Your task to perform on an android device: find photos in the google photos app Image 0: 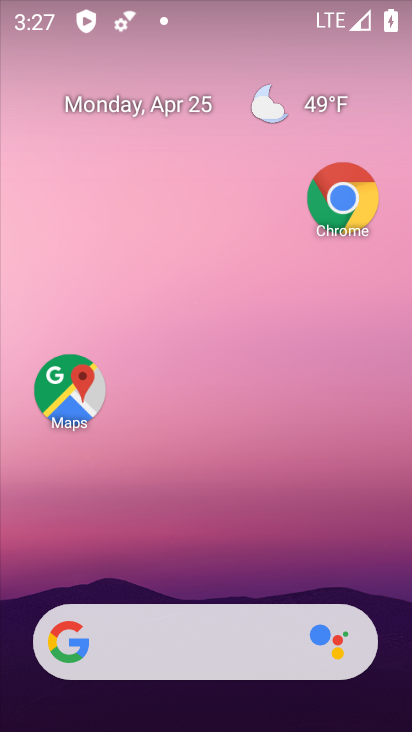
Step 0: drag from (144, 659) to (354, 47)
Your task to perform on an android device: find photos in the google photos app Image 1: 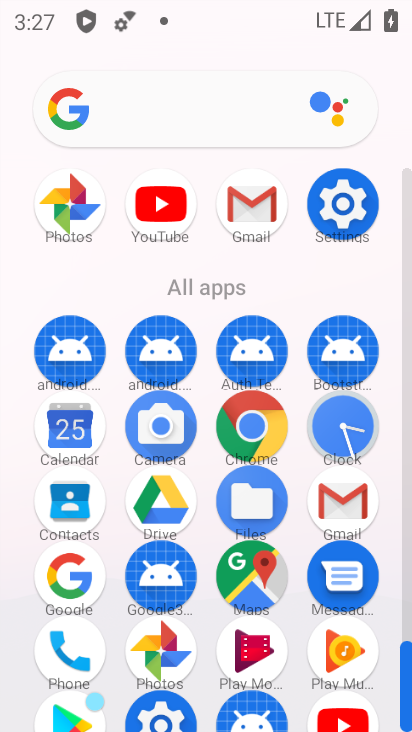
Step 1: click (165, 657)
Your task to perform on an android device: find photos in the google photos app Image 2: 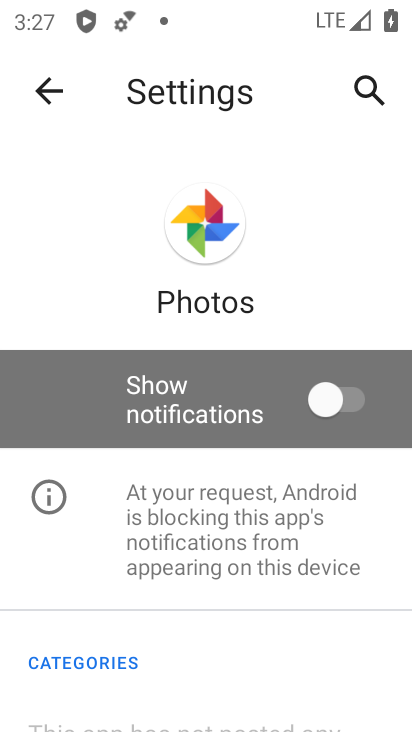
Step 2: click (49, 95)
Your task to perform on an android device: find photos in the google photos app Image 3: 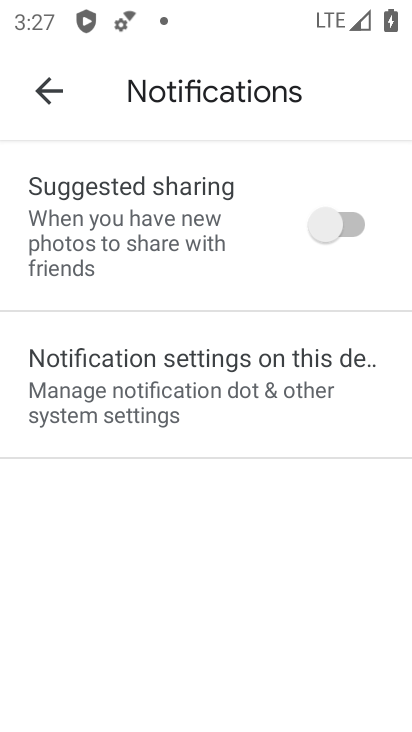
Step 3: click (49, 95)
Your task to perform on an android device: find photos in the google photos app Image 4: 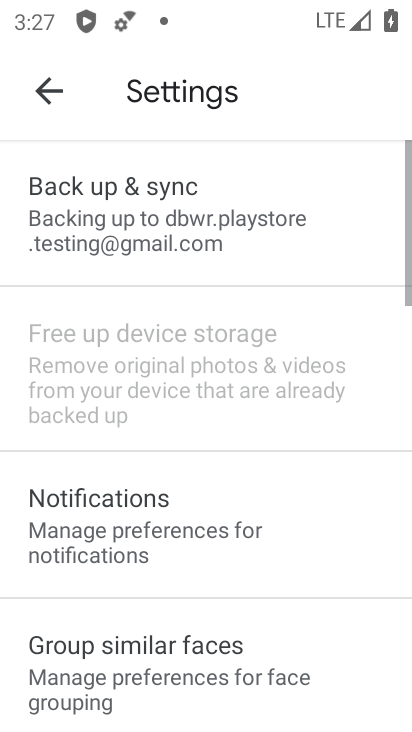
Step 4: click (49, 95)
Your task to perform on an android device: find photos in the google photos app Image 5: 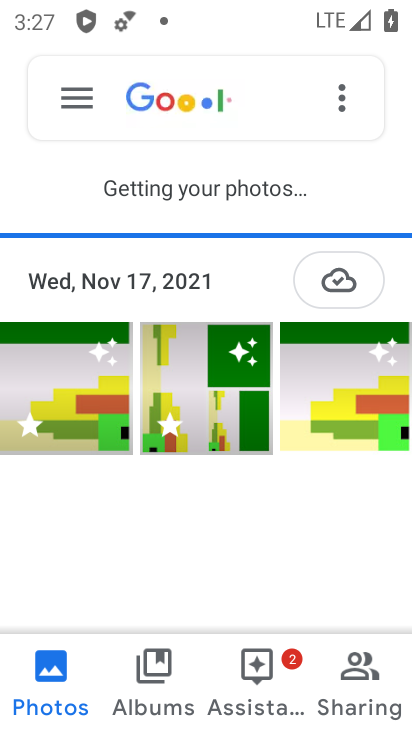
Step 5: click (29, 688)
Your task to perform on an android device: find photos in the google photos app Image 6: 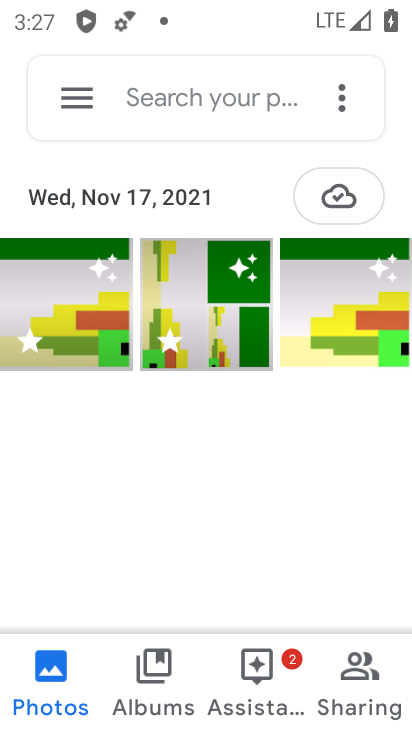
Step 6: task complete